Your task to perform on an android device: turn smart compose on in the gmail app Image 0: 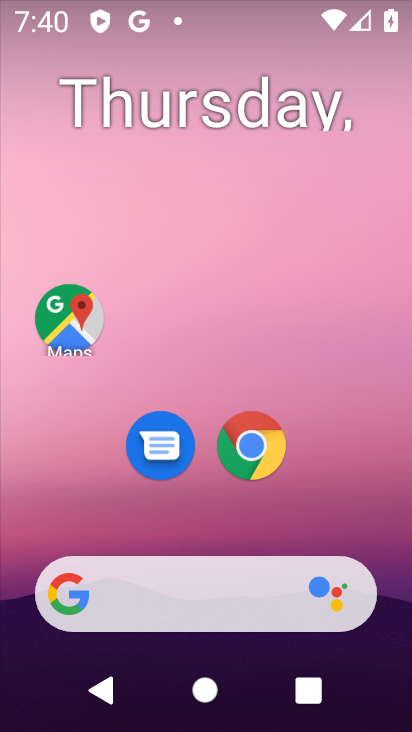
Step 0: drag from (363, 529) to (349, 59)
Your task to perform on an android device: turn smart compose on in the gmail app Image 1: 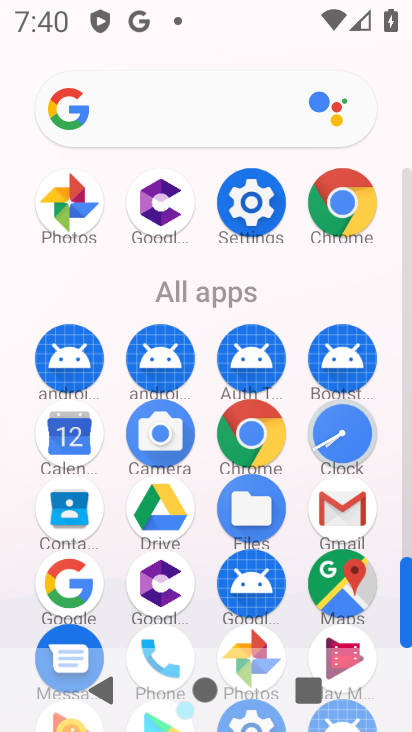
Step 1: click (339, 524)
Your task to perform on an android device: turn smart compose on in the gmail app Image 2: 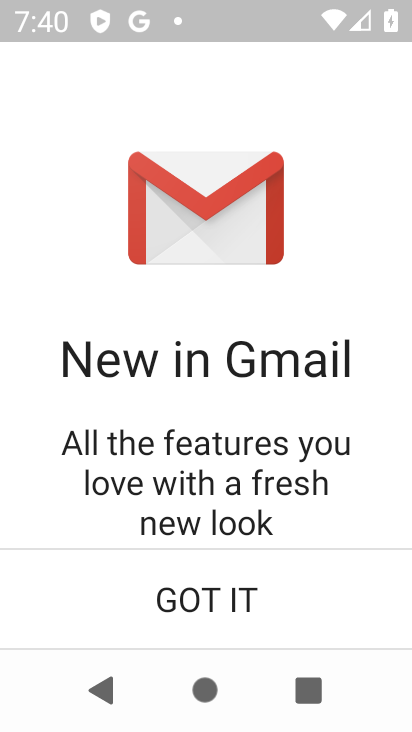
Step 2: click (227, 600)
Your task to perform on an android device: turn smart compose on in the gmail app Image 3: 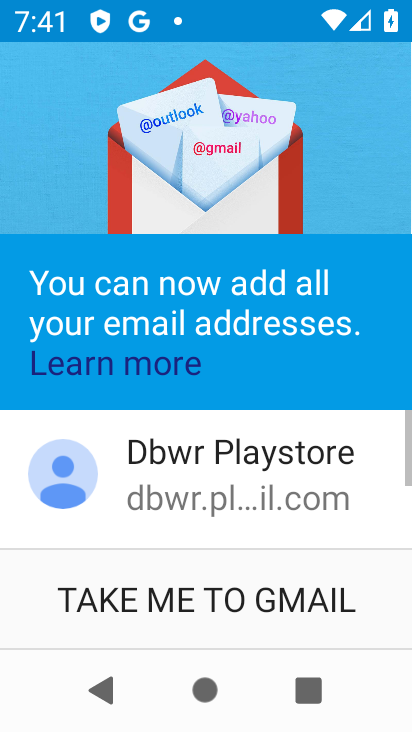
Step 3: click (241, 594)
Your task to perform on an android device: turn smart compose on in the gmail app Image 4: 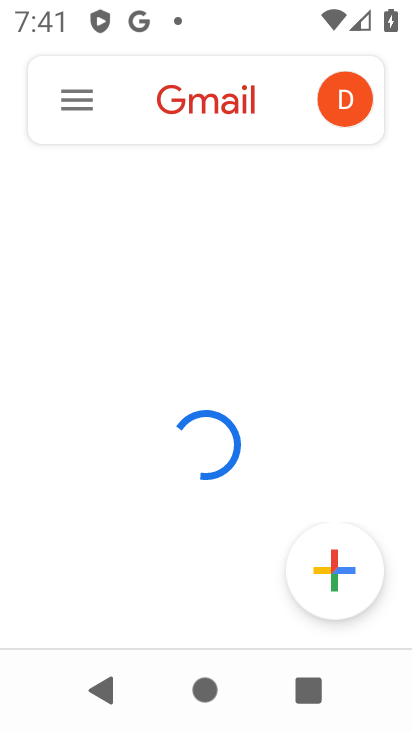
Step 4: click (75, 107)
Your task to perform on an android device: turn smart compose on in the gmail app Image 5: 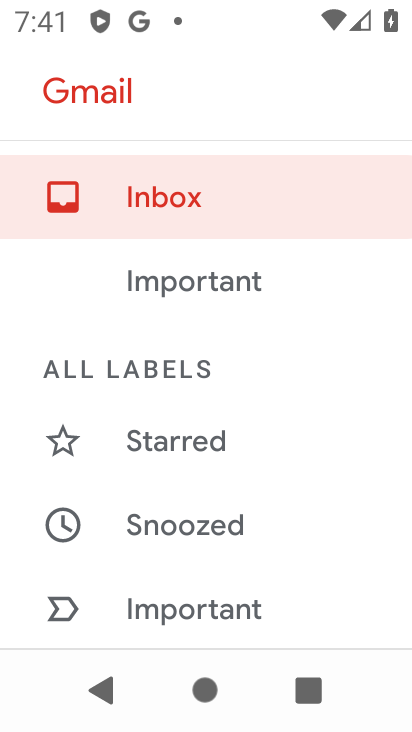
Step 5: drag from (239, 603) to (287, 244)
Your task to perform on an android device: turn smart compose on in the gmail app Image 6: 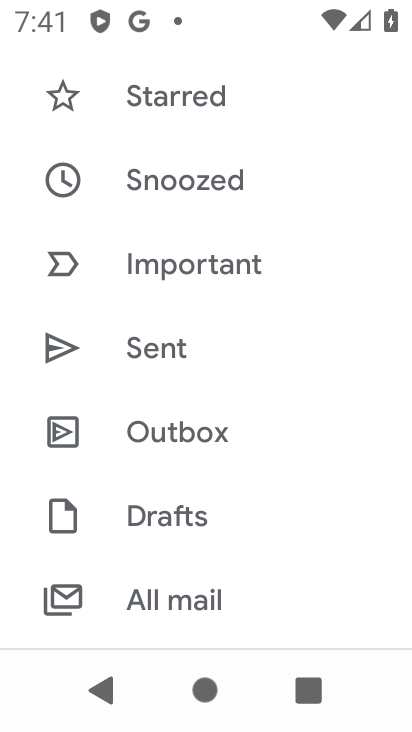
Step 6: drag from (259, 626) to (290, 225)
Your task to perform on an android device: turn smart compose on in the gmail app Image 7: 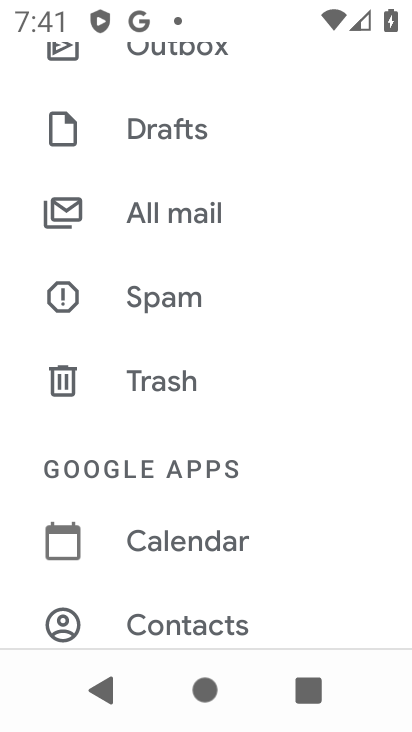
Step 7: drag from (248, 581) to (297, 239)
Your task to perform on an android device: turn smart compose on in the gmail app Image 8: 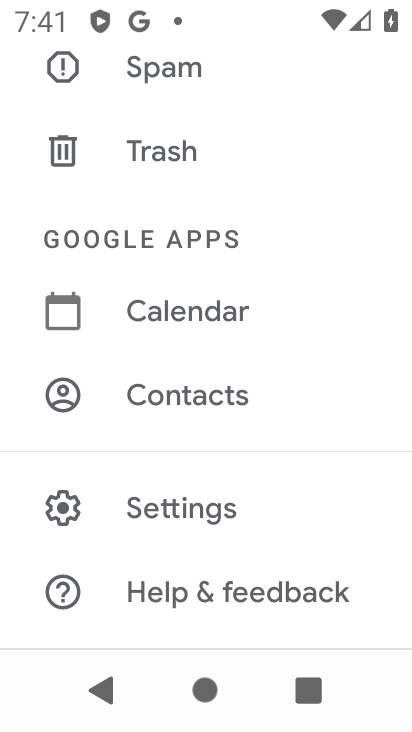
Step 8: click (216, 523)
Your task to perform on an android device: turn smart compose on in the gmail app Image 9: 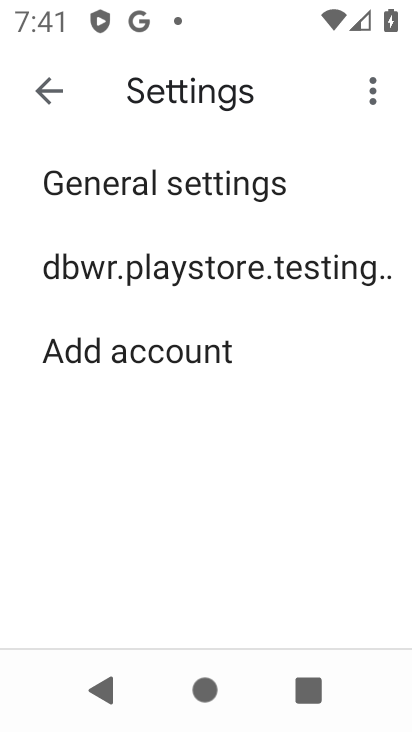
Step 9: click (215, 279)
Your task to perform on an android device: turn smart compose on in the gmail app Image 10: 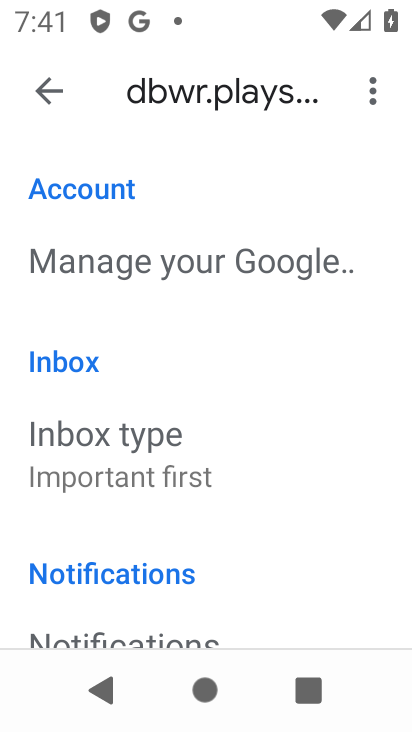
Step 10: task complete